Your task to perform on an android device: Open the stopwatch Image 0: 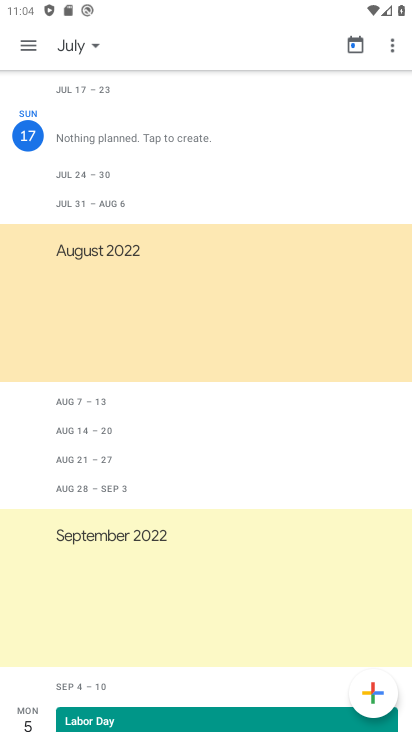
Step 0: press home button
Your task to perform on an android device: Open the stopwatch Image 1: 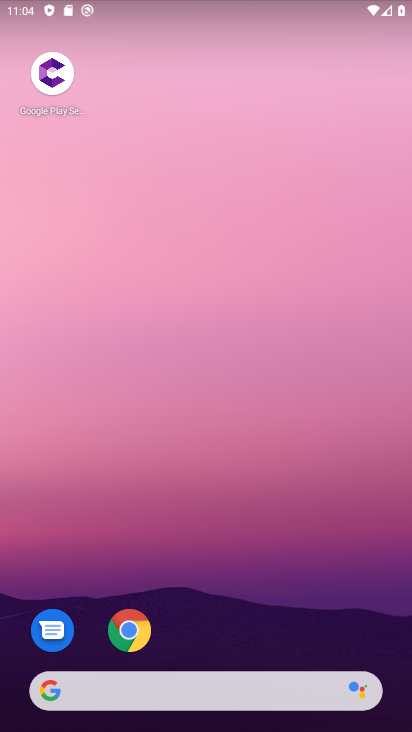
Step 1: drag from (301, 489) to (259, 139)
Your task to perform on an android device: Open the stopwatch Image 2: 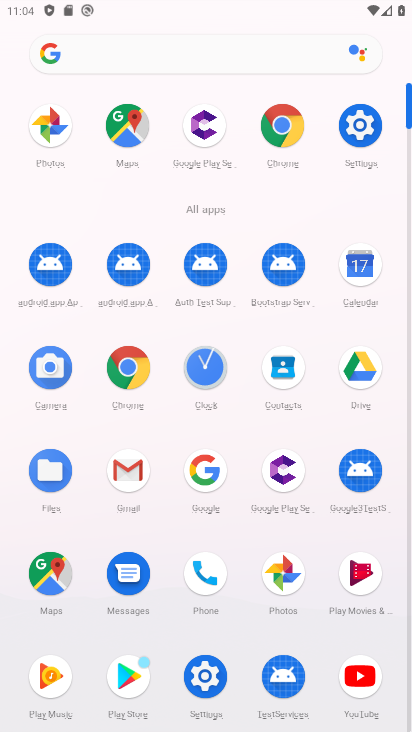
Step 2: click (210, 375)
Your task to perform on an android device: Open the stopwatch Image 3: 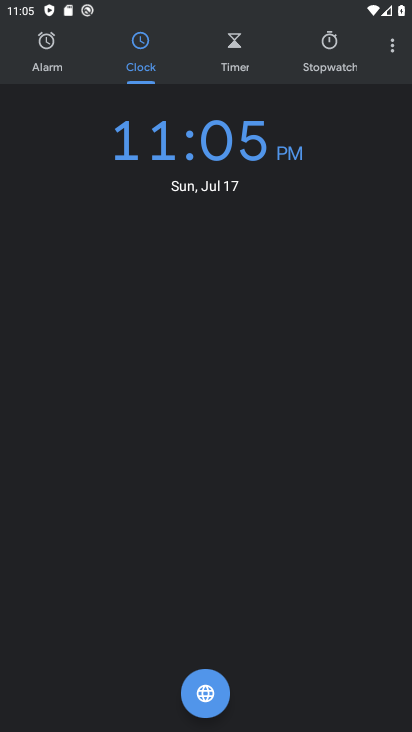
Step 3: click (340, 58)
Your task to perform on an android device: Open the stopwatch Image 4: 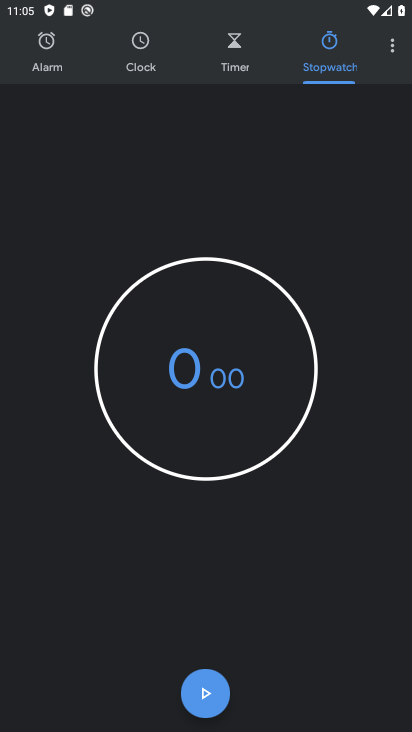
Step 4: task complete